Your task to perform on an android device: turn smart compose on in the gmail app Image 0: 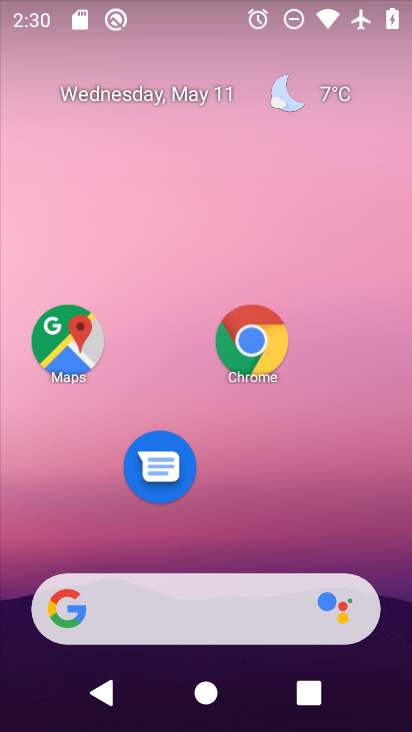
Step 0: drag from (161, 618) to (322, 140)
Your task to perform on an android device: turn smart compose on in the gmail app Image 1: 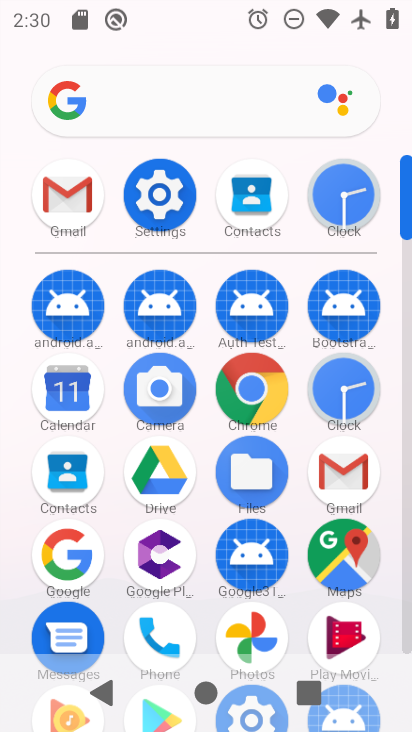
Step 1: click (65, 211)
Your task to perform on an android device: turn smart compose on in the gmail app Image 2: 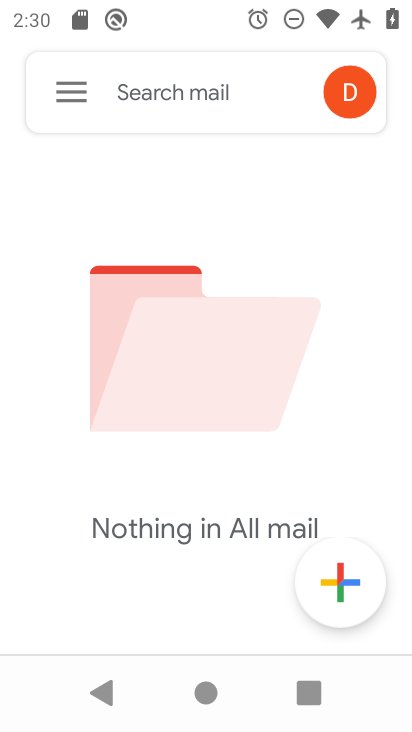
Step 2: click (73, 96)
Your task to perform on an android device: turn smart compose on in the gmail app Image 3: 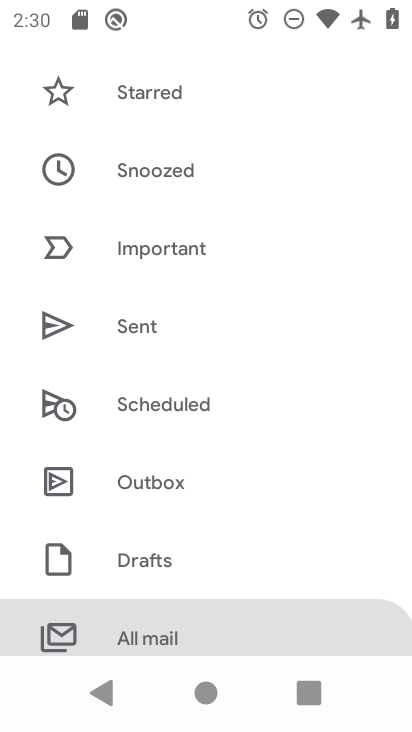
Step 3: drag from (261, 612) to (356, 34)
Your task to perform on an android device: turn smart compose on in the gmail app Image 4: 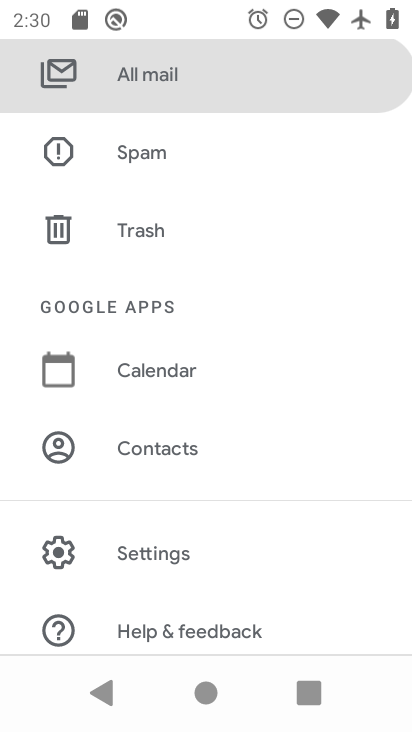
Step 4: click (151, 558)
Your task to perform on an android device: turn smart compose on in the gmail app Image 5: 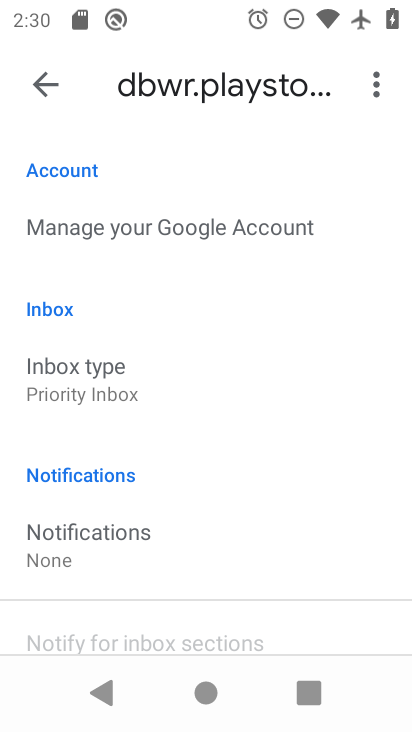
Step 5: task complete